Your task to perform on an android device: turn pop-ups on in chrome Image 0: 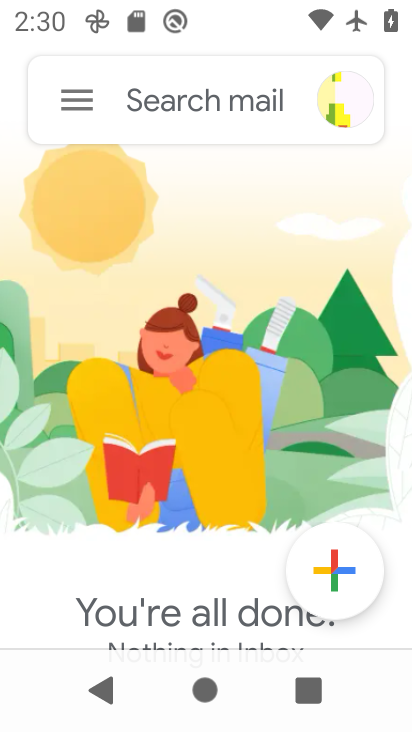
Step 0: press home button
Your task to perform on an android device: turn pop-ups on in chrome Image 1: 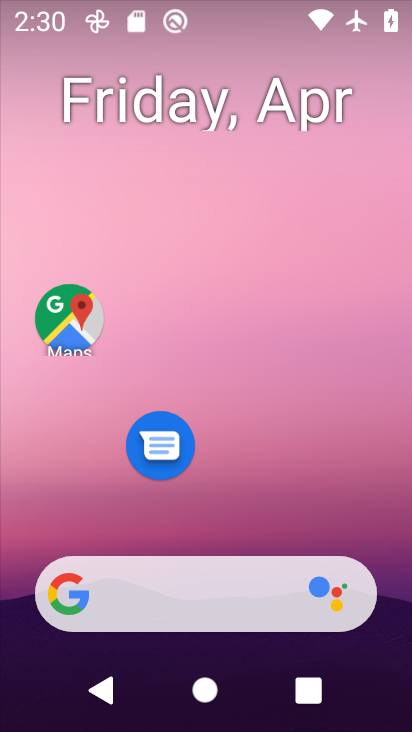
Step 1: drag from (234, 503) to (202, 82)
Your task to perform on an android device: turn pop-ups on in chrome Image 2: 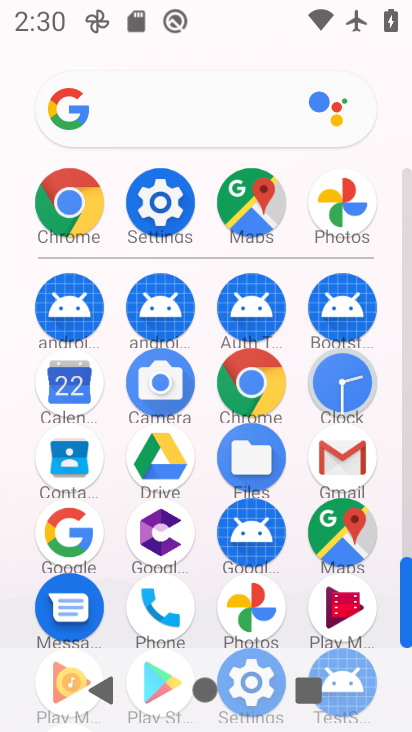
Step 2: click (70, 186)
Your task to perform on an android device: turn pop-ups on in chrome Image 3: 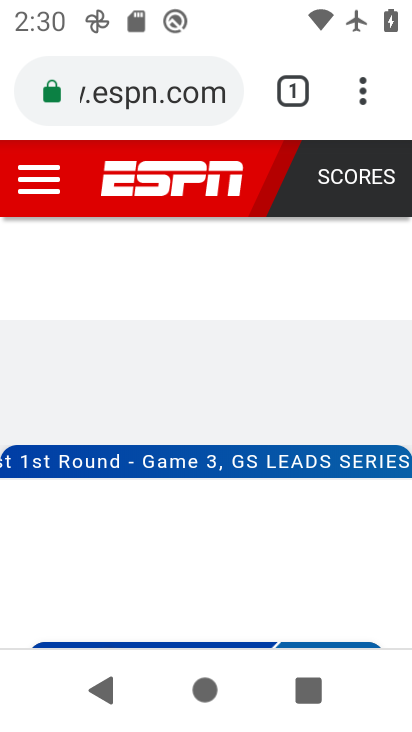
Step 3: click (360, 84)
Your task to perform on an android device: turn pop-ups on in chrome Image 4: 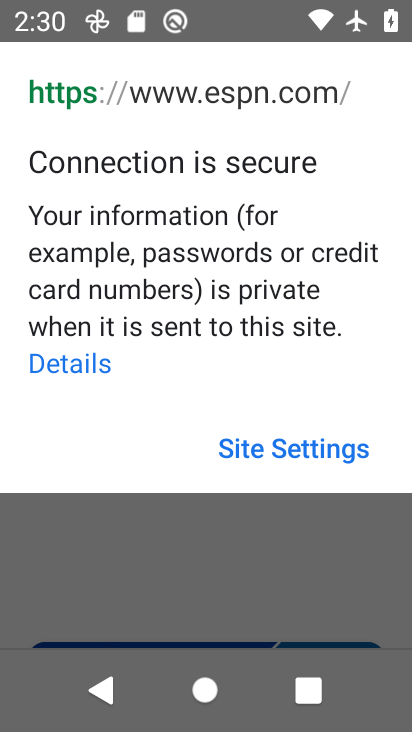
Step 4: click (361, 565)
Your task to perform on an android device: turn pop-ups on in chrome Image 5: 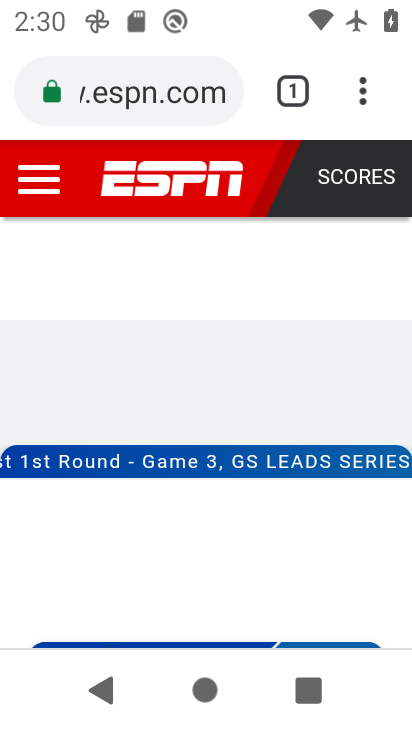
Step 5: click (361, 94)
Your task to perform on an android device: turn pop-ups on in chrome Image 6: 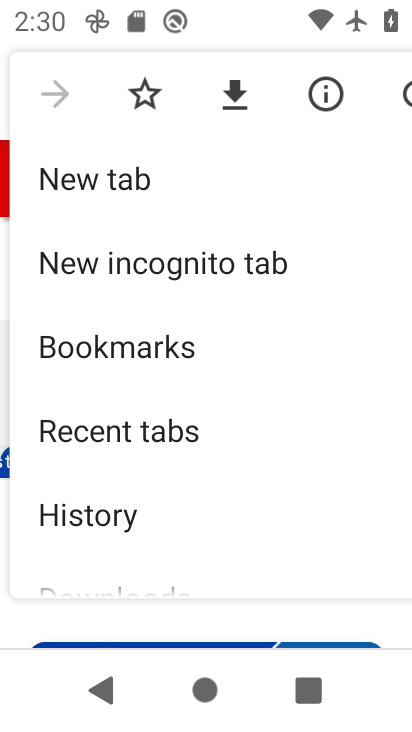
Step 6: drag from (253, 484) to (285, 236)
Your task to perform on an android device: turn pop-ups on in chrome Image 7: 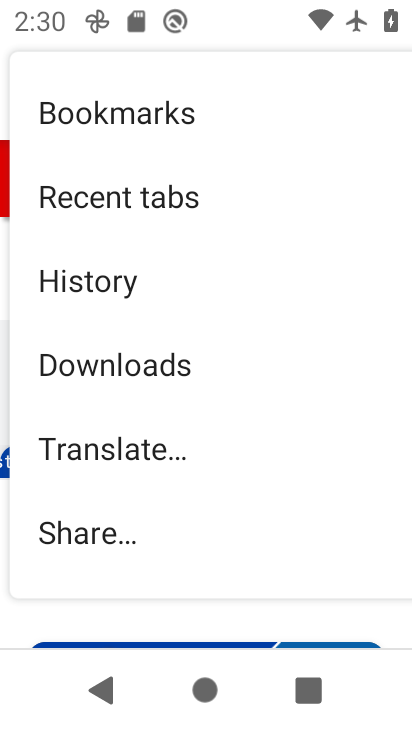
Step 7: drag from (269, 408) to (283, 256)
Your task to perform on an android device: turn pop-ups on in chrome Image 8: 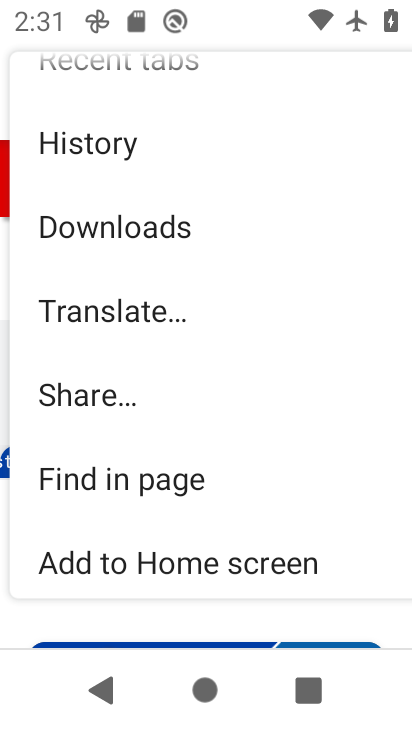
Step 8: drag from (232, 459) to (244, 213)
Your task to perform on an android device: turn pop-ups on in chrome Image 9: 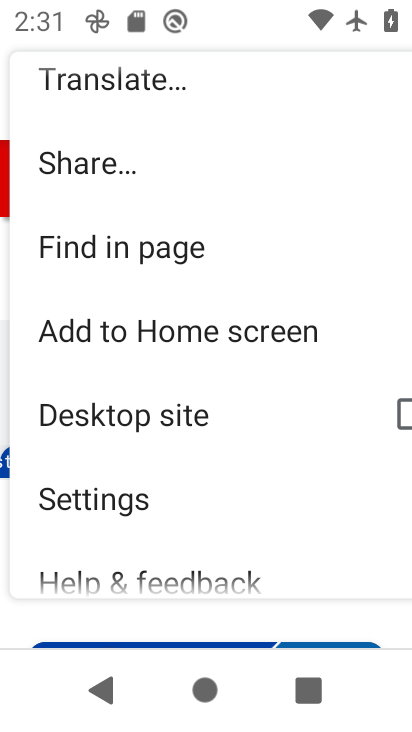
Step 9: click (202, 492)
Your task to perform on an android device: turn pop-ups on in chrome Image 10: 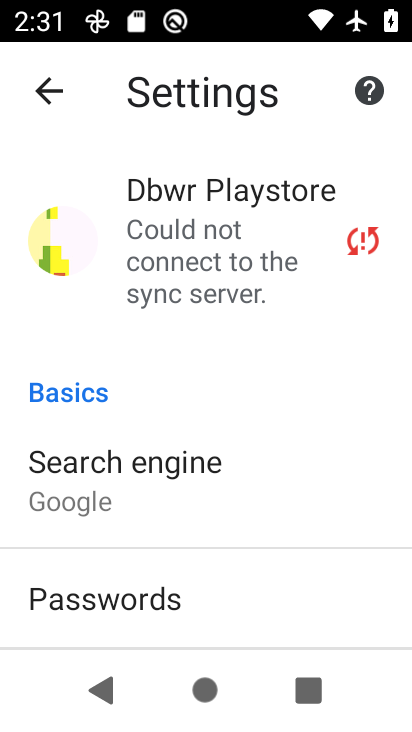
Step 10: drag from (183, 524) to (192, 326)
Your task to perform on an android device: turn pop-ups on in chrome Image 11: 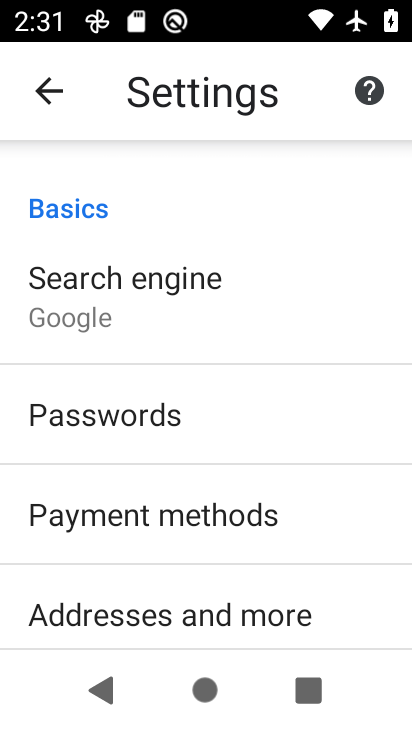
Step 11: drag from (184, 442) to (221, 226)
Your task to perform on an android device: turn pop-ups on in chrome Image 12: 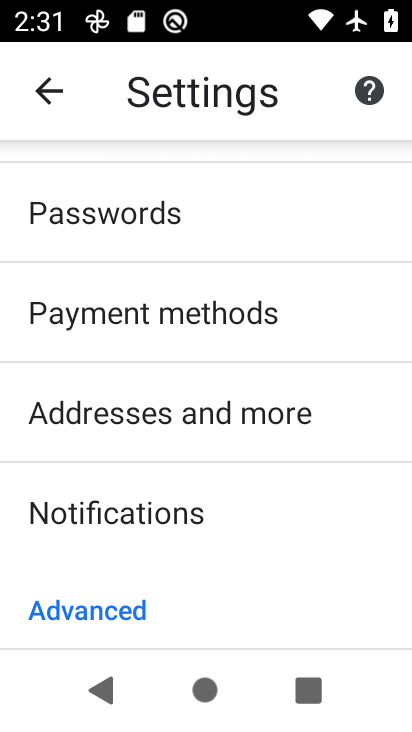
Step 12: drag from (117, 514) to (185, 300)
Your task to perform on an android device: turn pop-ups on in chrome Image 13: 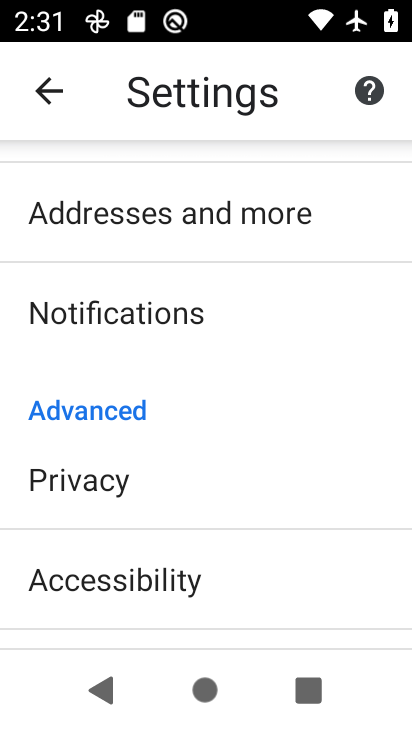
Step 13: drag from (190, 455) to (222, 291)
Your task to perform on an android device: turn pop-ups on in chrome Image 14: 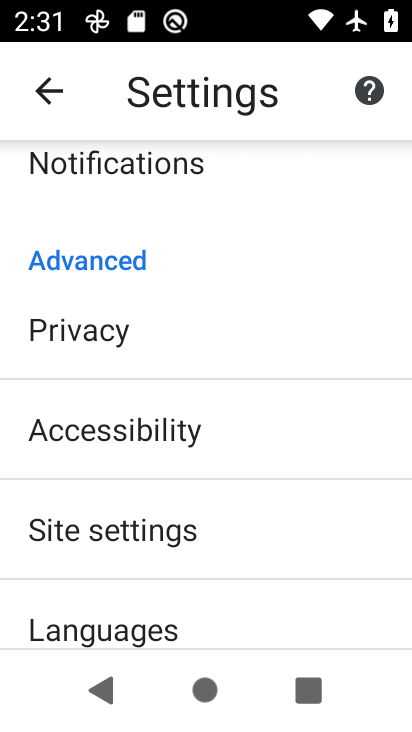
Step 14: click (191, 523)
Your task to perform on an android device: turn pop-ups on in chrome Image 15: 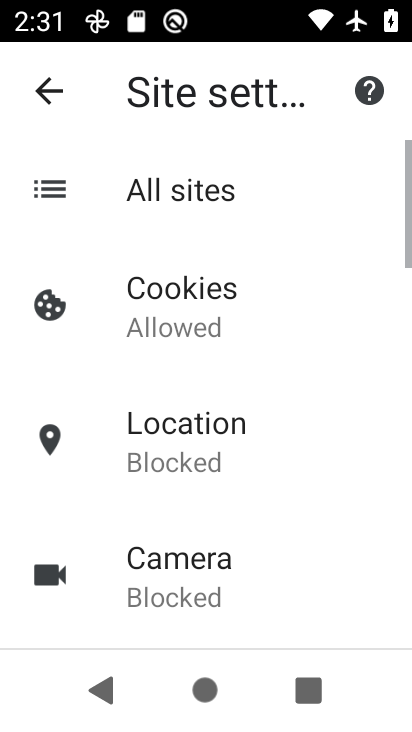
Step 15: drag from (203, 563) to (240, 397)
Your task to perform on an android device: turn pop-ups on in chrome Image 16: 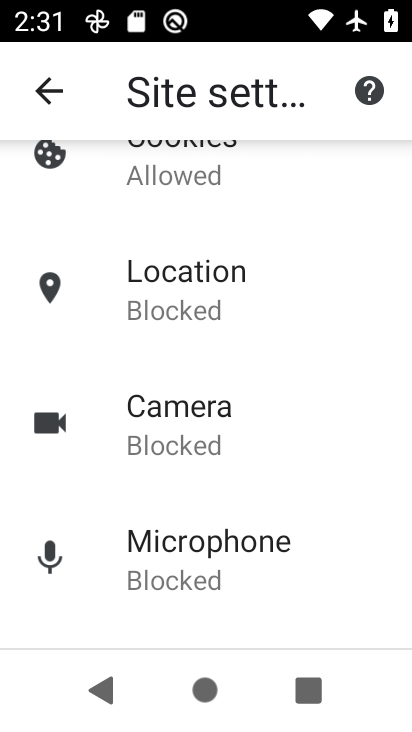
Step 16: drag from (207, 471) to (228, 327)
Your task to perform on an android device: turn pop-ups on in chrome Image 17: 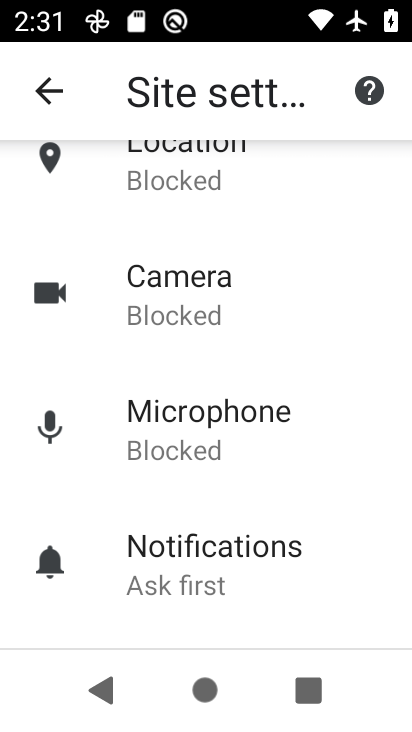
Step 17: drag from (220, 446) to (265, 276)
Your task to perform on an android device: turn pop-ups on in chrome Image 18: 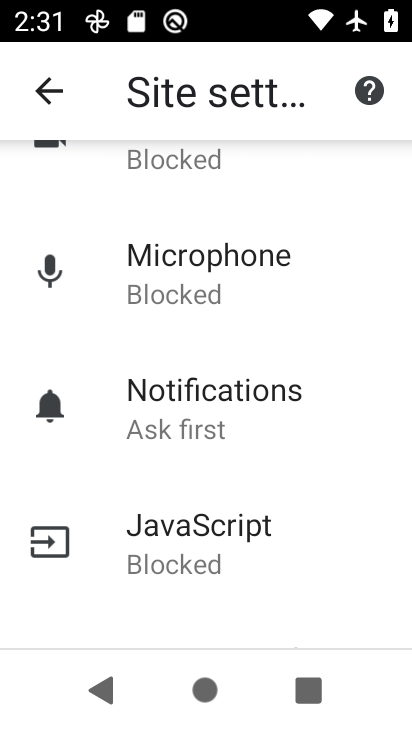
Step 18: drag from (242, 469) to (258, 304)
Your task to perform on an android device: turn pop-ups on in chrome Image 19: 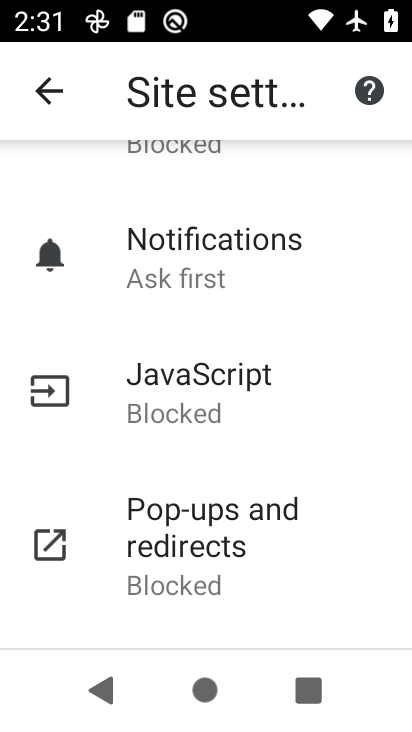
Step 19: click (230, 523)
Your task to perform on an android device: turn pop-ups on in chrome Image 20: 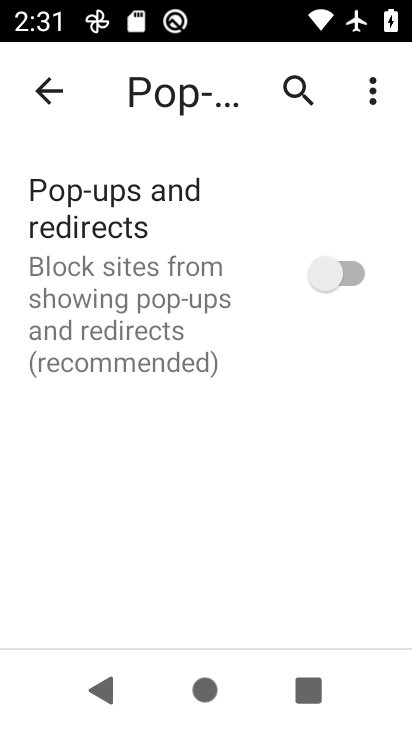
Step 20: click (353, 262)
Your task to perform on an android device: turn pop-ups on in chrome Image 21: 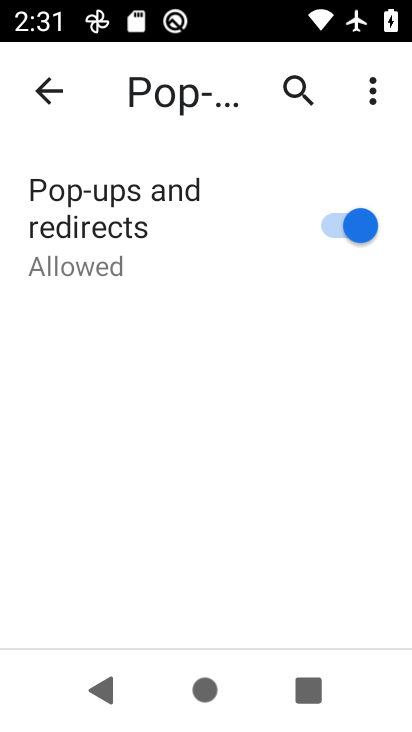
Step 21: task complete